Your task to perform on an android device: empty trash in google photos Image 0: 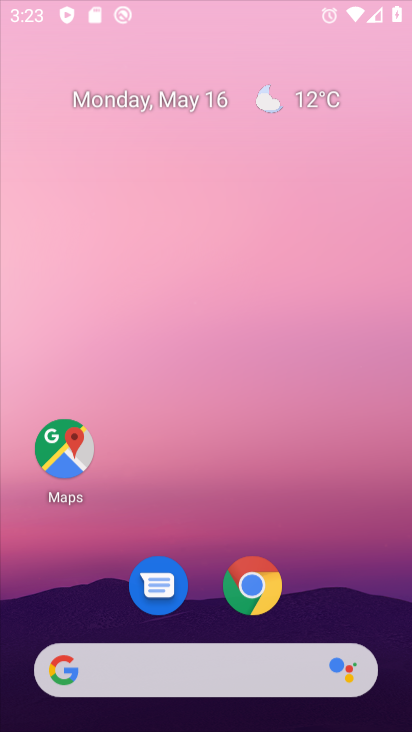
Step 0: click (255, 580)
Your task to perform on an android device: empty trash in google photos Image 1: 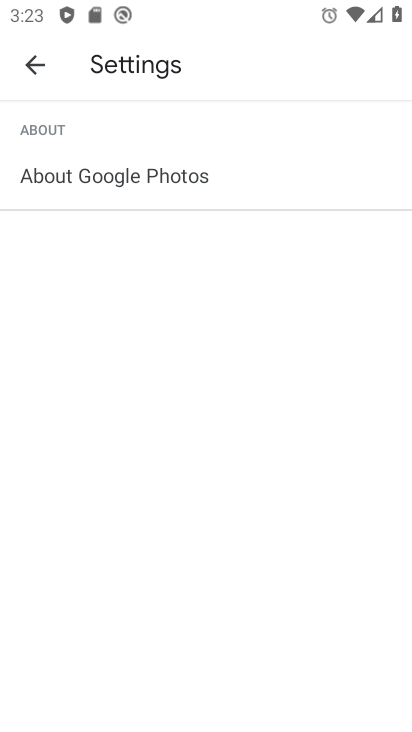
Step 1: press home button
Your task to perform on an android device: empty trash in google photos Image 2: 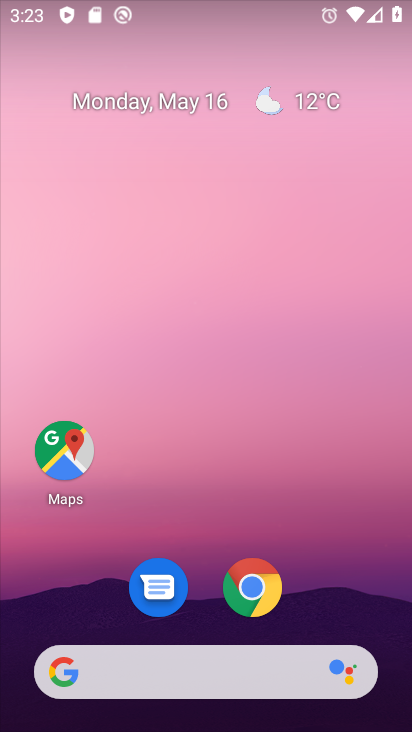
Step 2: drag from (399, 659) to (406, 114)
Your task to perform on an android device: empty trash in google photos Image 3: 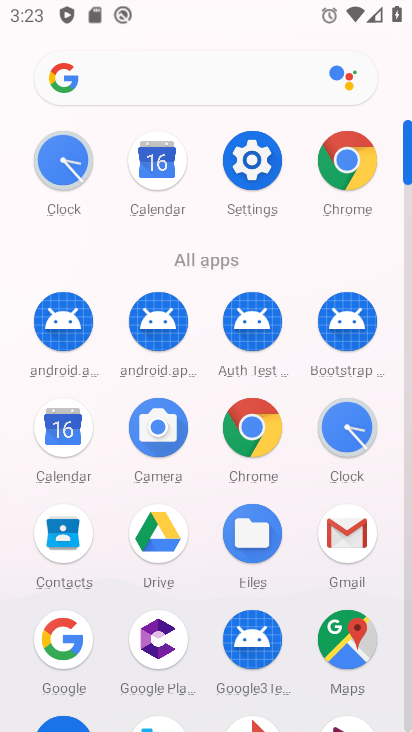
Step 3: drag from (403, 122) to (403, 66)
Your task to perform on an android device: empty trash in google photos Image 4: 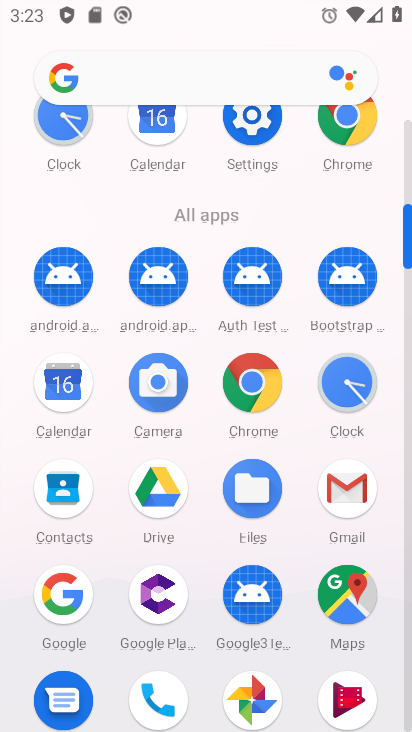
Step 4: click (238, 699)
Your task to perform on an android device: empty trash in google photos Image 5: 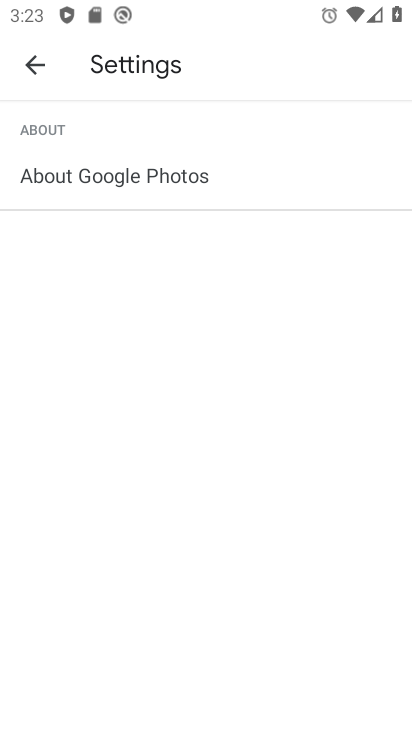
Step 5: click (37, 65)
Your task to perform on an android device: empty trash in google photos Image 6: 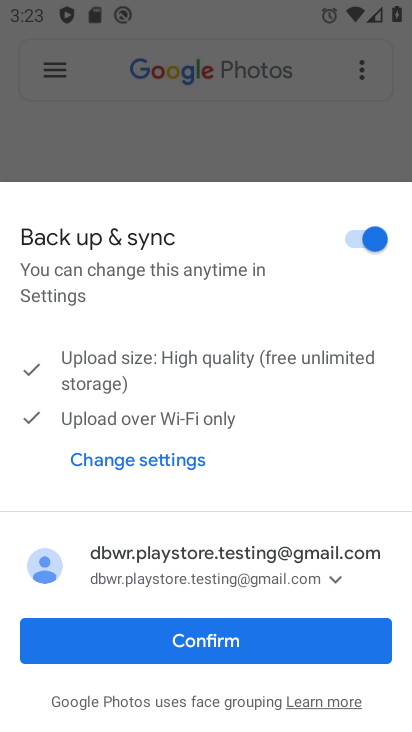
Step 6: click (200, 645)
Your task to perform on an android device: empty trash in google photos Image 7: 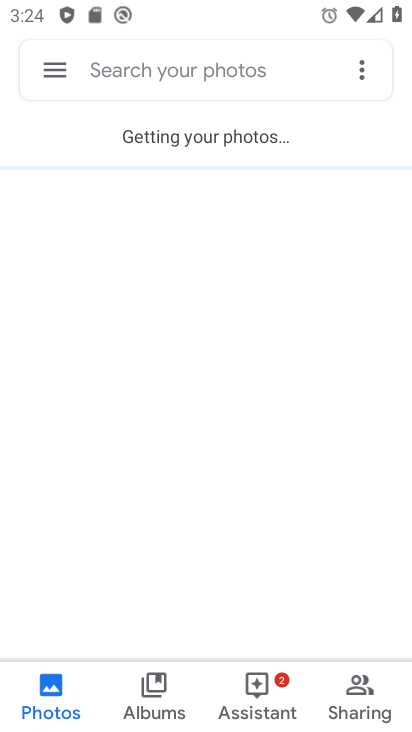
Step 7: click (48, 70)
Your task to perform on an android device: empty trash in google photos Image 8: 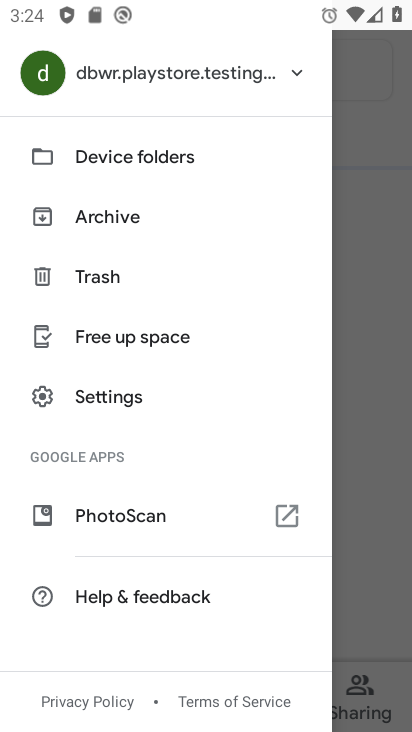
Step 8: click (91, 276)
Your task to perform on an android device: empty trash in google photos Image 9: 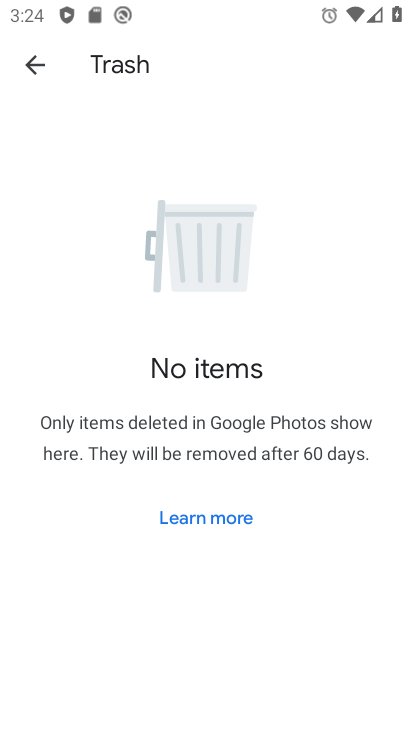
Step 9: task complete